Your task to perform on an android device: turn on the 24-hour format for clock Image 0: 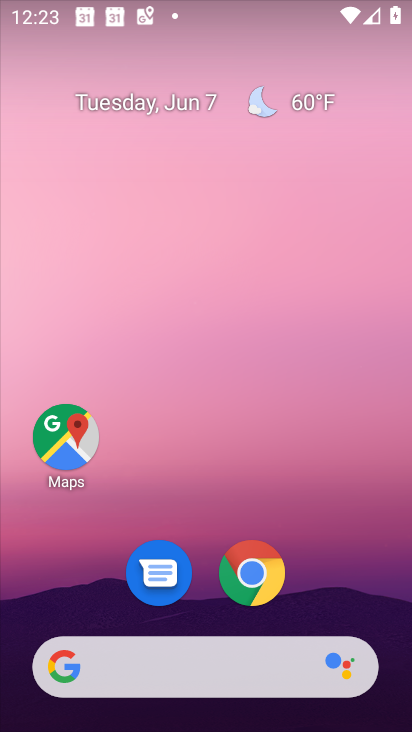
Step 0: drag from (328, 590) to (316, 20)
Your task to perform on an android device: turn on the 24-hour format for clock Image 1: 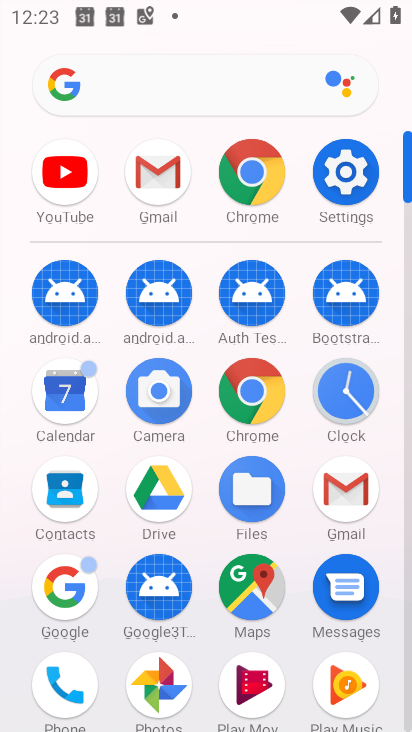
Step 1: click (400, 642)
Your task to perform on an android device: turn on the 24-hour format for clock Image 2: 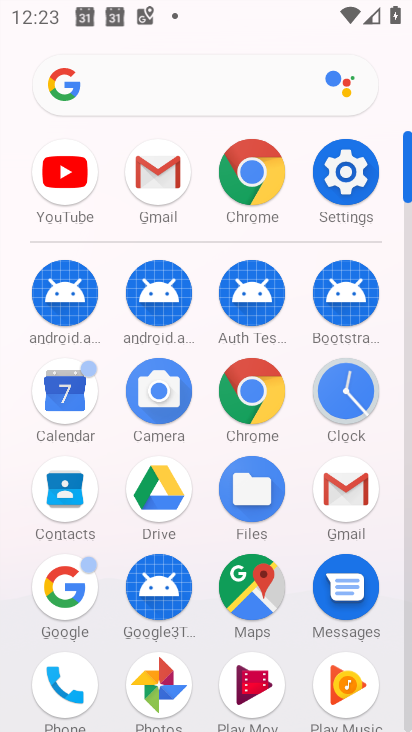
Step 2: click (341, 372)
Your task to perform on an android device: turn on the 24-hour format for clock Image 3: 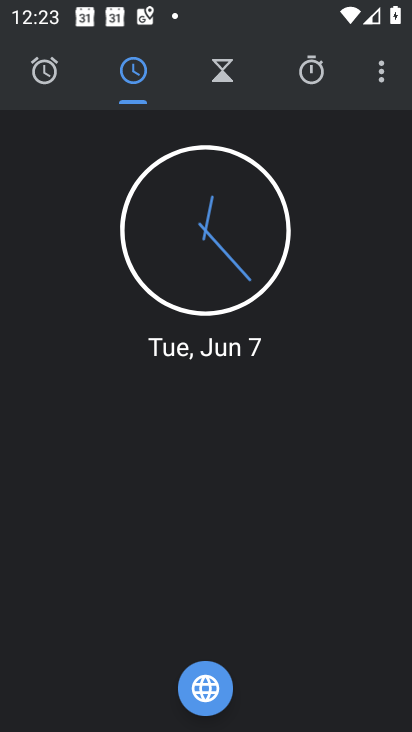
Step 3: click (380, 72)
Your task to perform on an android device: turn on the 24-hour format for clock Image 4: 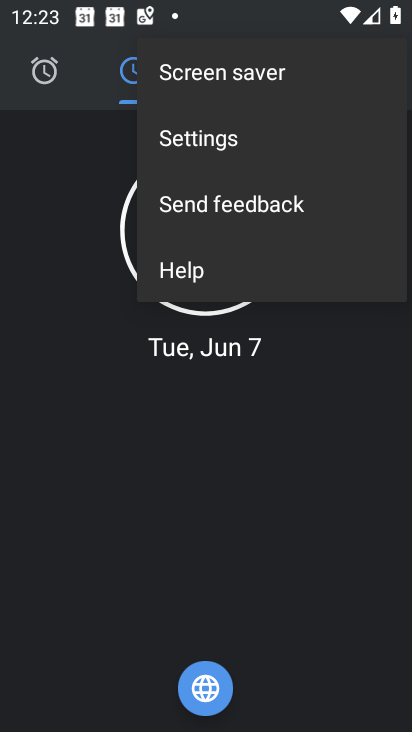
Step 4: click (294, 144)
Your task to perform on an android device: turn on the 24-hour format for clock Image 5: 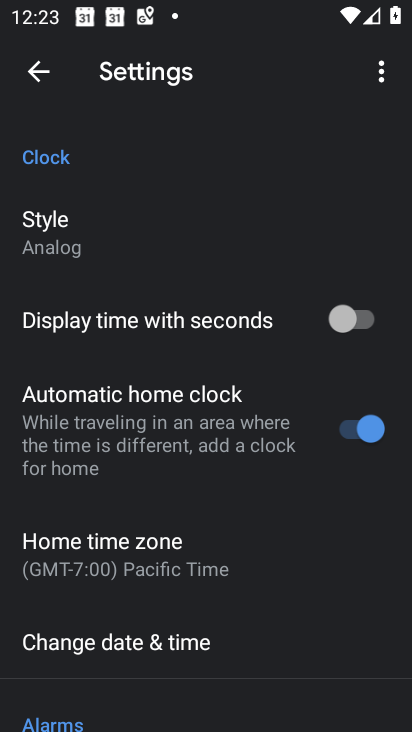
Step 5: click (150, 633)
Your task to perform on an android device: turn on the 24-hour format for clock Image 6: 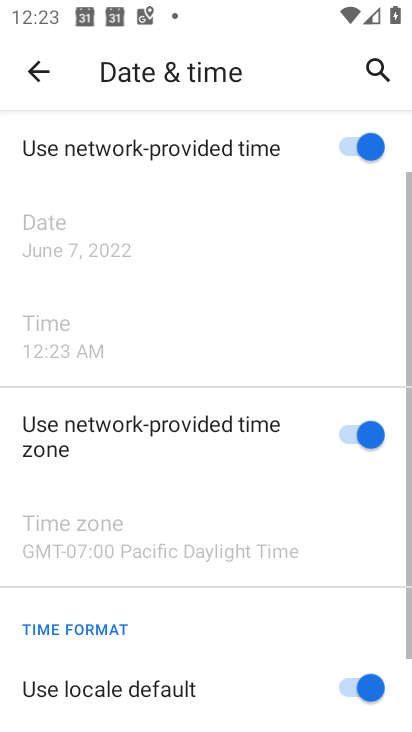
Step 6: drag from (277, 674) to (200, 363)
Your task to perform on an android device: turn on the 24-hour format for clock Image 7: 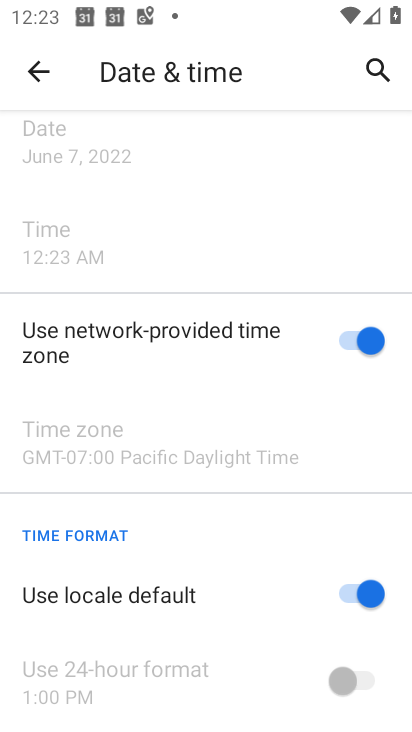
Step 7: click (243, 601)
Your task to perform on an android device: turn on the 24-hour format for clock Image 8: 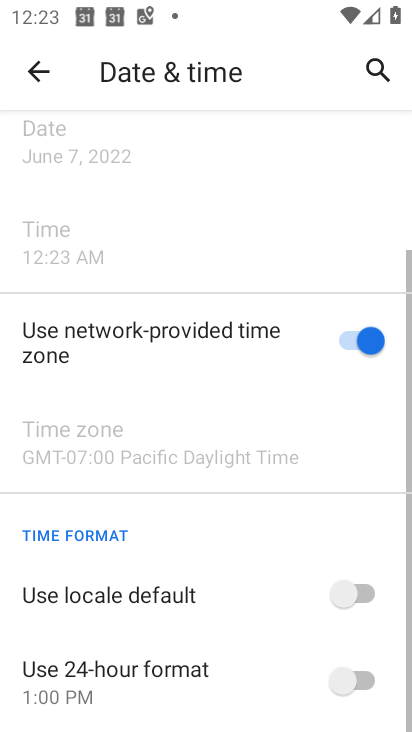
Step 8: click (243, 670)
Your task to perform on an android device: turn on the 24-hour format for clock Image 9: 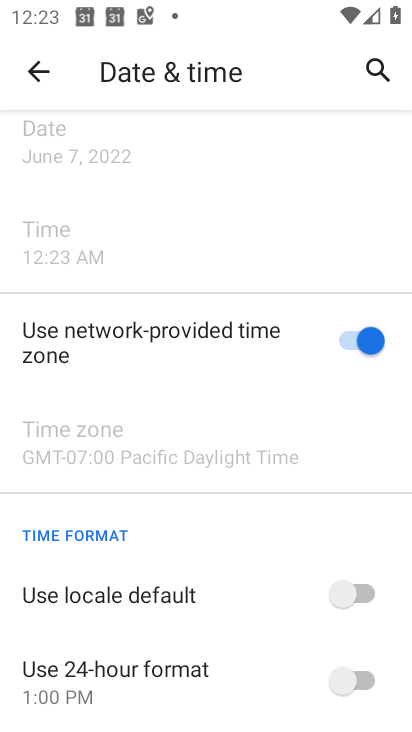
Step 9: click (257, 721)
Your task to perform on an android device: turn on the 24-hour format for clock Image 10: 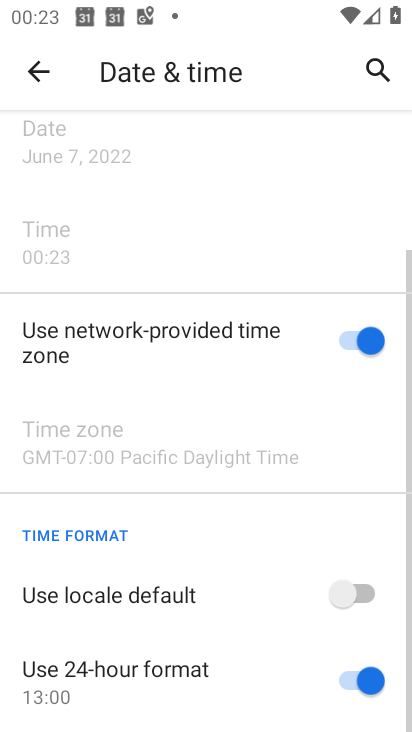
Step 10: task complete